Your task to perform on an android device: choose inbox layout in the gmail app Image 0: 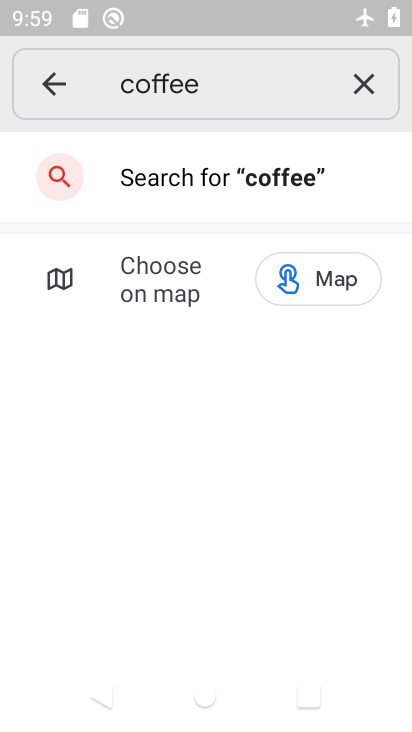
Step 0: press home button
Your task to perform on an android device: choose inbox layout in the gmail app Image 1: 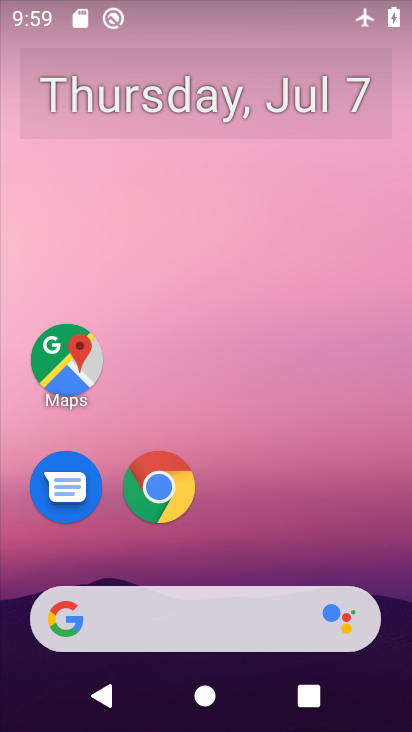
Step 1: drag from (380, 524) to (366, 95)
Your task to perform on an android device: choose inbox layout in the gmail app Image 2: 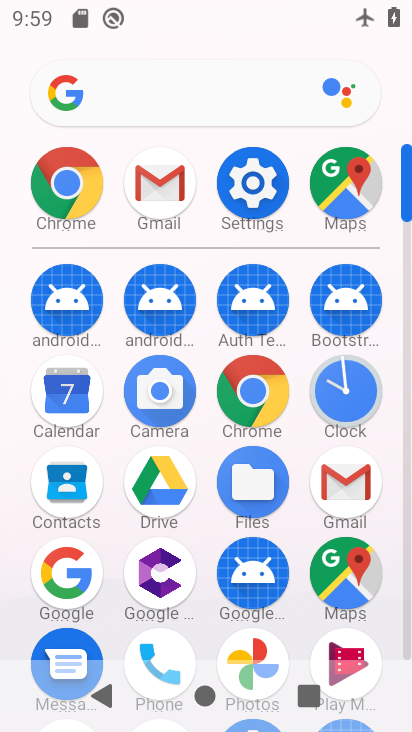
Step 2: click (351, 477)
Your task to perform on an android device: choose inbox layout in the gmail app Image 3: 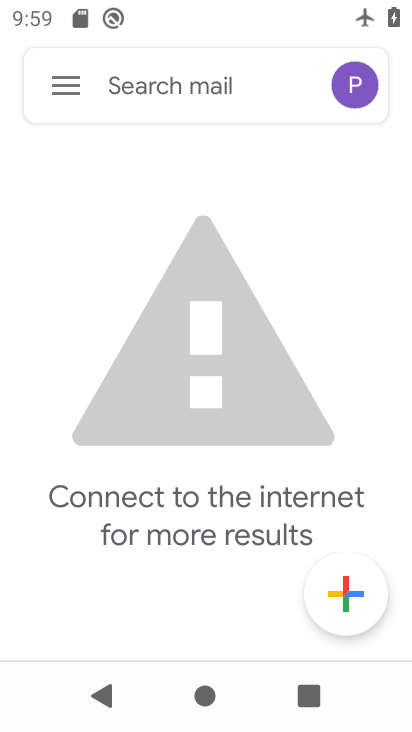
Step 3: click (294, 347)
Your task to perform on an android device: choose inbox layout in the gmail app Image 4: 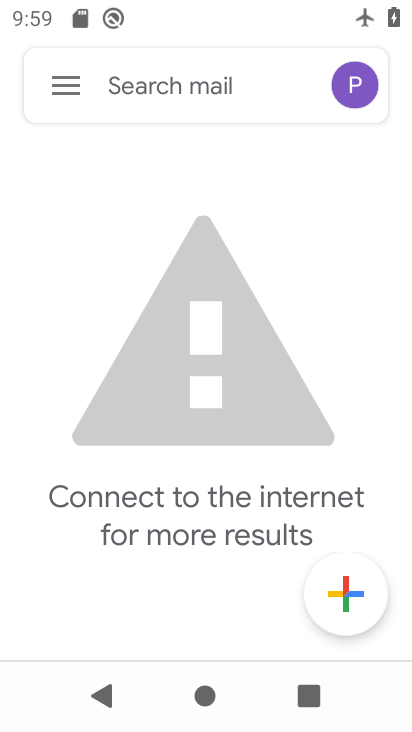
Step 4: click (76, 100)
Your task to perform on an android device: choose inbox layout in the gmail app Image 5: 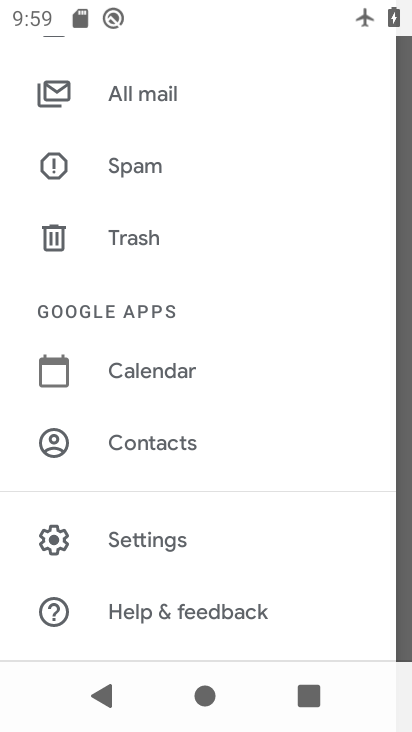
Step 5: click (173, 537)
Your task to perform on an android device: choose inbox layout in the gmail app Image 6: 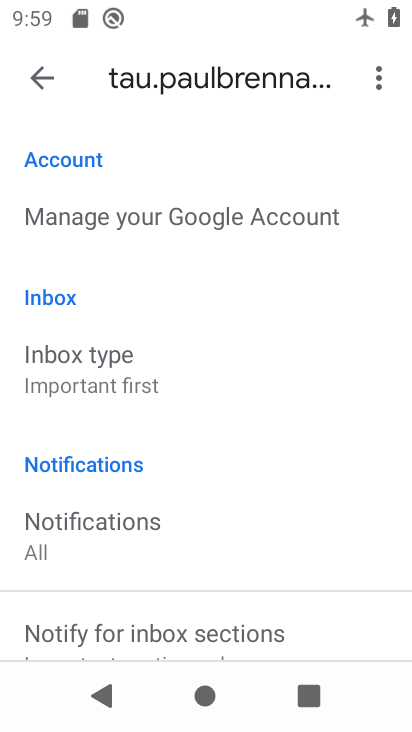
Step 6: click (144, 378)
Your task to perform on an android device: choose inbox layout in the gmail app Image 7: 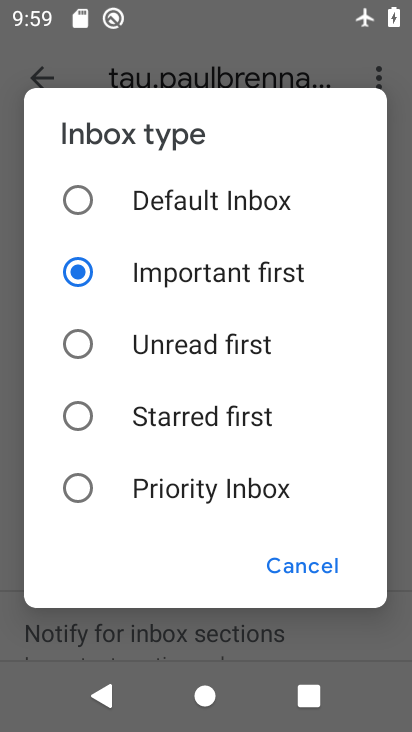
Step 7: click (175, 204)
Your task to perform on an android device: choose inbox layout in the gmail app Image 8: 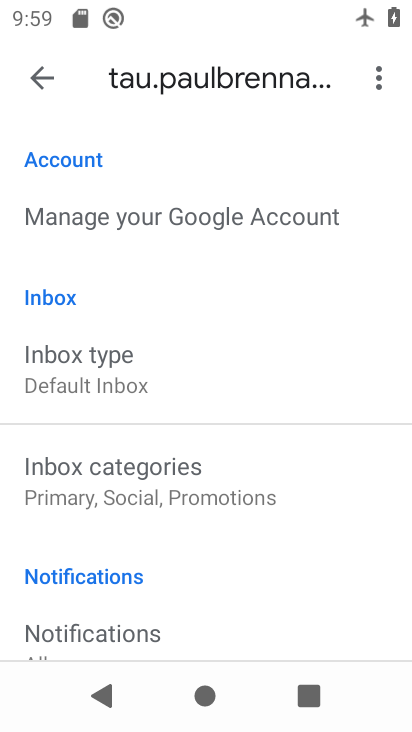
Step 8: task complete